Your task to perform on an android device: turn smart compose on in the gmail app Image 0: 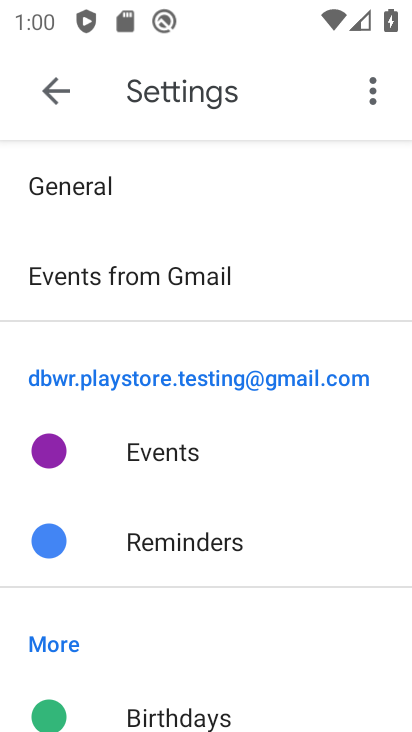
Step 0: press back button
Your task to perform on an android device: turn smart compose on in the gmail app Image 1: 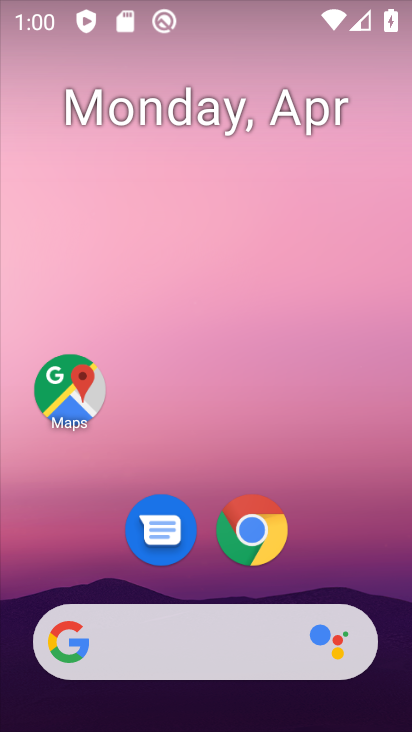
Step 1: drag from (126, 599) to (293, 9)
Your task to perform on an android device: turn smart compose on in the gmail app Image 2: 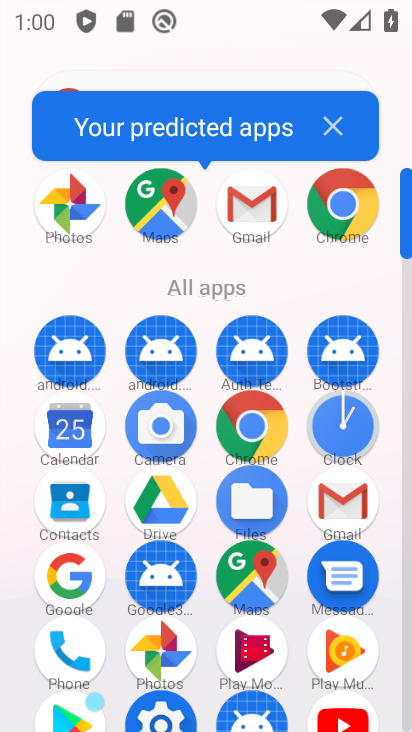
Step 2: click (361, 510)
Your task to perform on an android device: turn smart compose on in the gmail app Image 3: 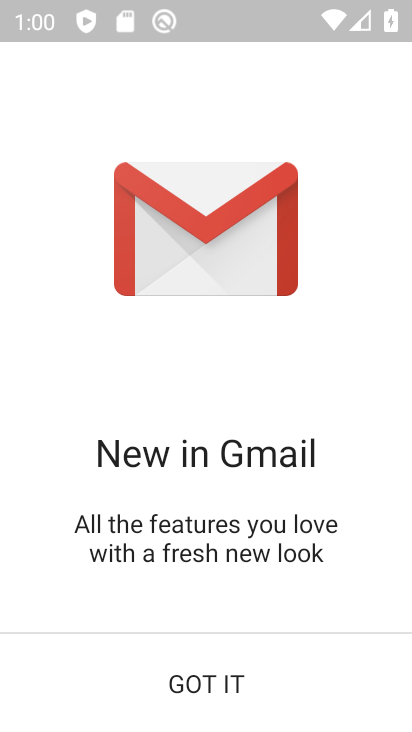
Step 3: click (236, 674)
Your task to perform on an android device: turn smart compose on in the gmail app Image 4: 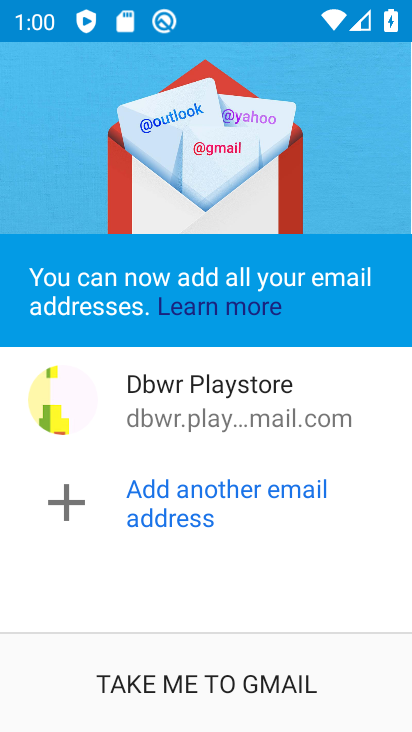
Step 4: click (236, 676)
Your task to perform on an android device: turn smart compose on in the gmail app Image 5: 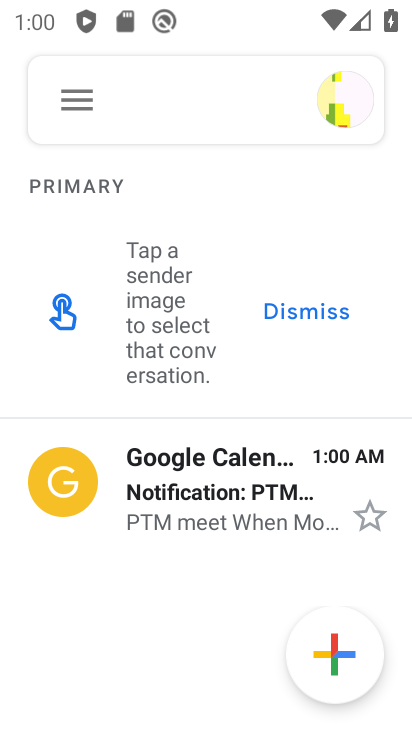
Step 5: click (95, 95)
Your task to perform on an android device: turn smart compose on in the gmail app Image 6: 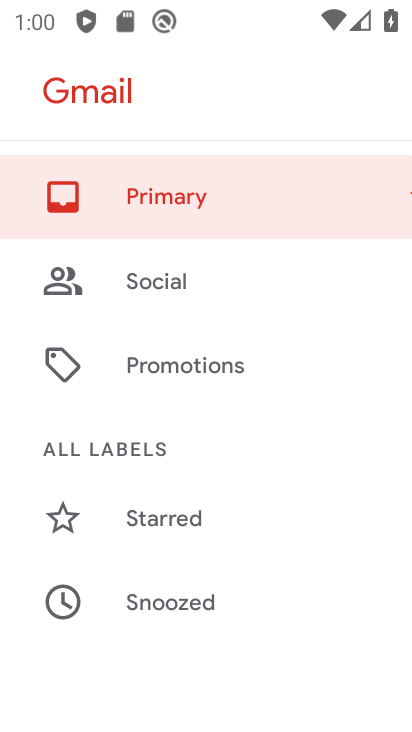
Step 6: drag from (192, 639) to (310, 180)
Your task to perform on an android device: turn smart compose on in the gmail app Image 7: 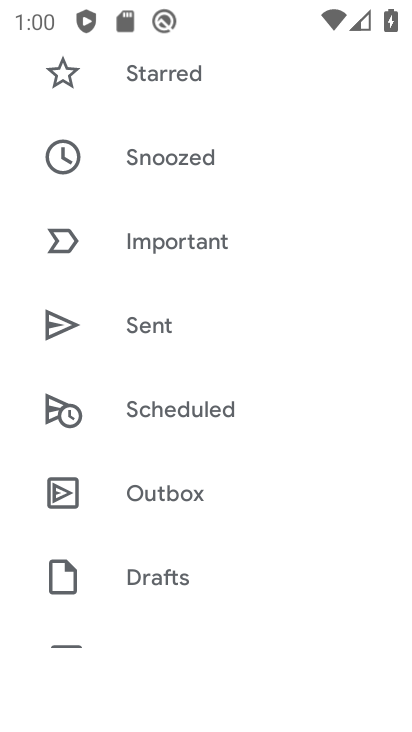
Step 7: drag from (192, 582) to (311, 180)
Your task to perform on an android device: turn smart compose on in the gmail app Image 8: 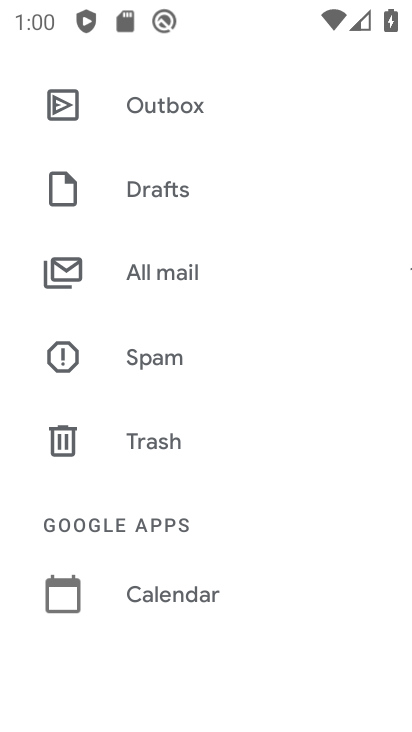
Step 8: drag from (178, 613) to (308, 133)
Your task to perform on an android device: turn smart compose on in the gmail app Image 9: 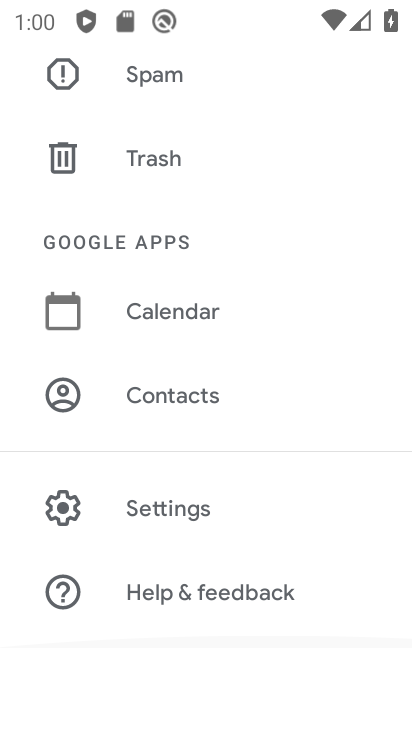
Step 9: click (214, 497)
Your task to perform on an android device: turn smart compose on in the gmail app Image 10: 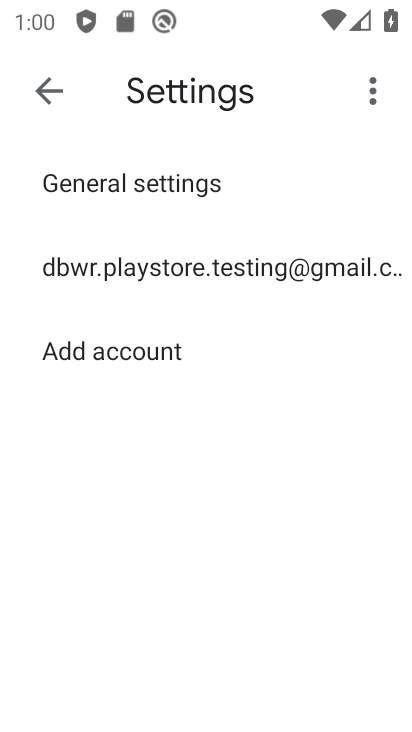
Step 10: click (301, 289)
Your task to perform on an android device: turn smart compose on in the gmail app Image 11: 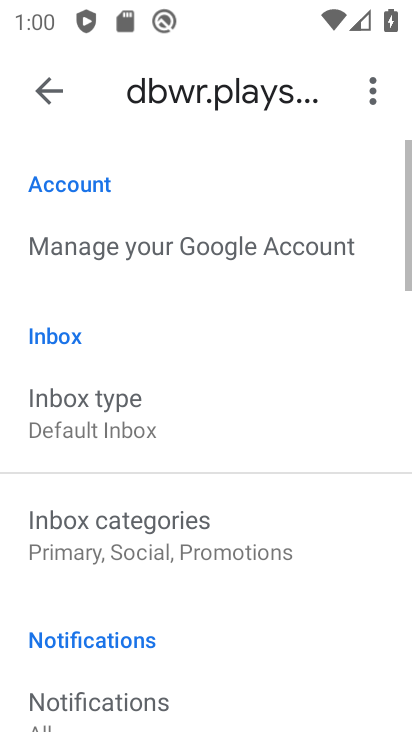
Step 11: task complete